Your task to perform on an android device: set default search engine in the chrome app Image 0: 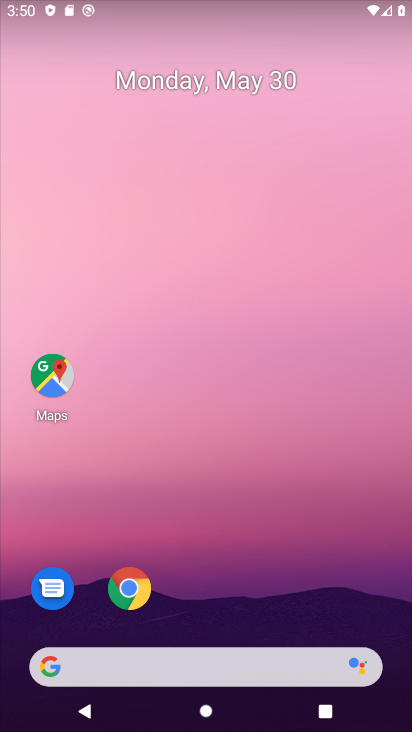
Step 0: click (137, 594)
Your task to perform on an android device: set default search engine in the chrome app Image 1: 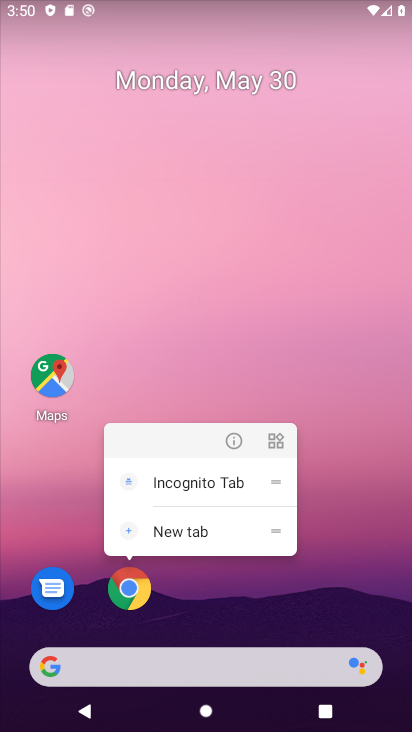
Step 1: click (134, 589)
Your task to perform on an android device: set default search engine in the chrome app Image 2: 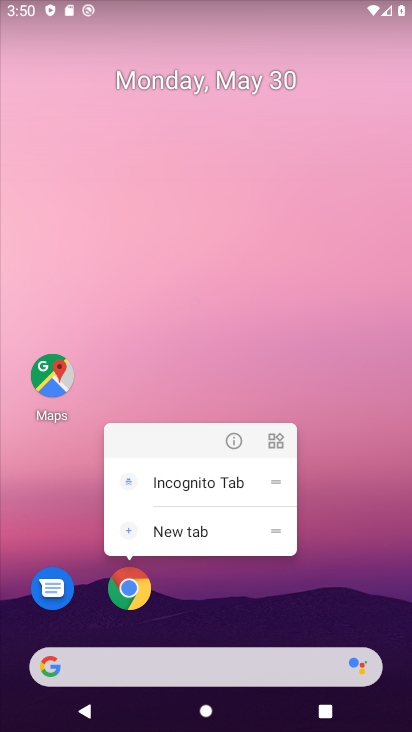
Step 2: click (130, 589)
Your task to perform on an android device: set default search engine in the chrome app Image 3: 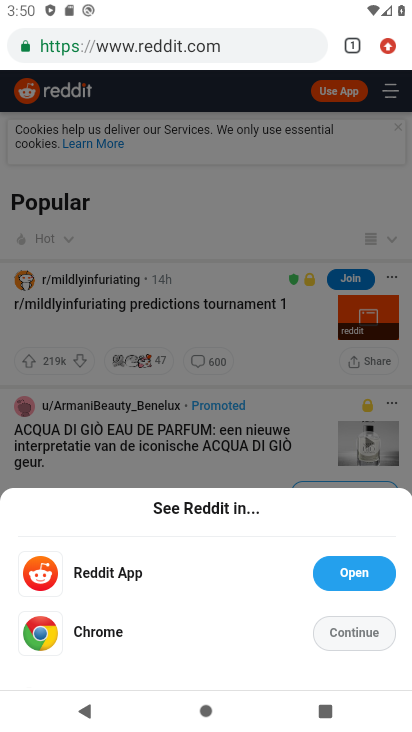
Step 3: click (386, 41)
Your task to perform on an android device: set default search engine in the chrome app Image 4: 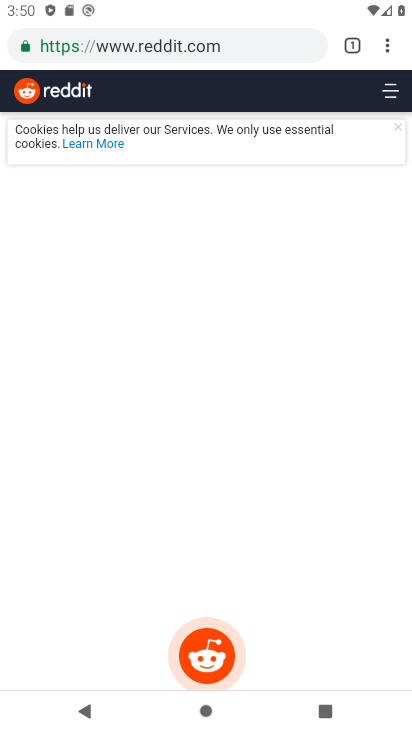
Step 4: click (389, 44)
Your task to perform on an android device: set default search engine in the chrome app Image 5: 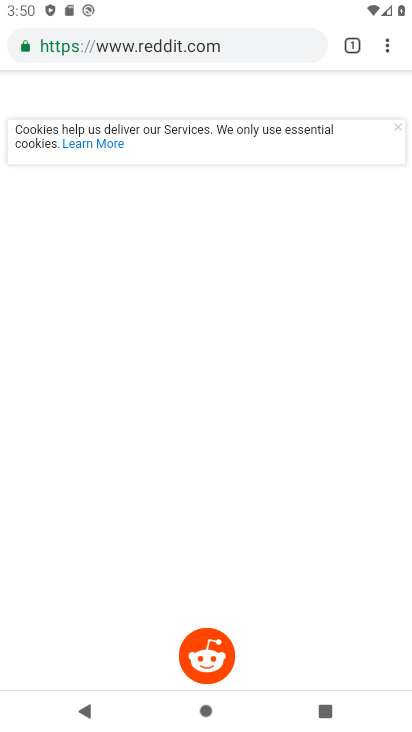
Step 5: click (386, 50)
Your task to perform on an android device: set default search engine in the chrome app Image 6: 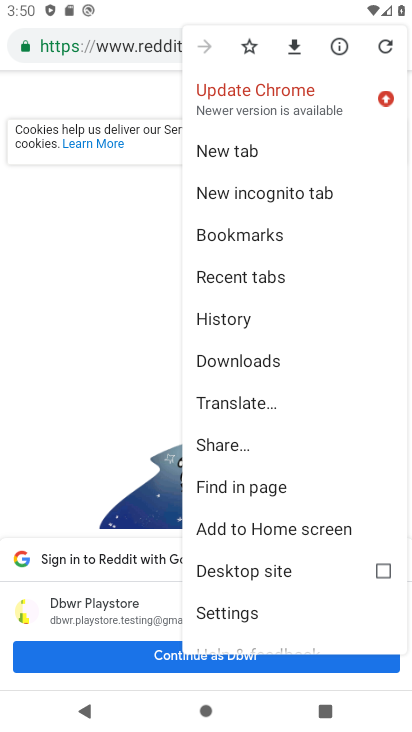
Step 6: click (238, 615)
Your task to perform on an android device: set default search engine in the chrome app Image 7: 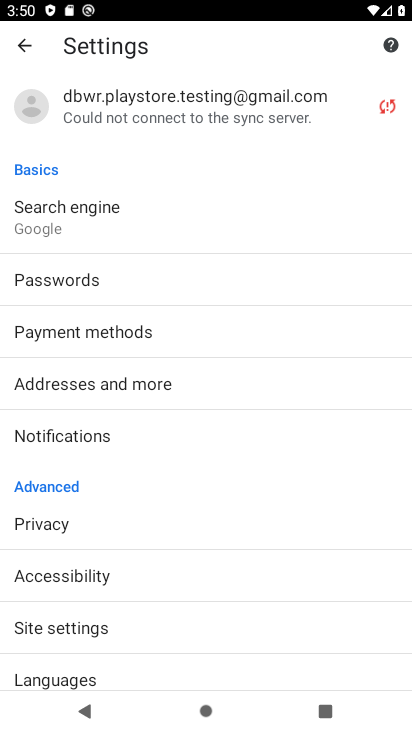
Step 7: click (73, 228)
Your task to perform on an android device: set default search engine in the chrome app Image 8: 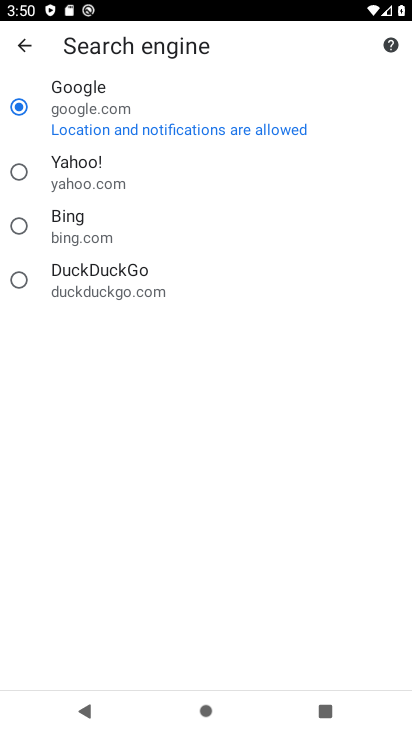
Step 8: task complete